Your task to perform on an android device: change alarm snooze length Image 0: 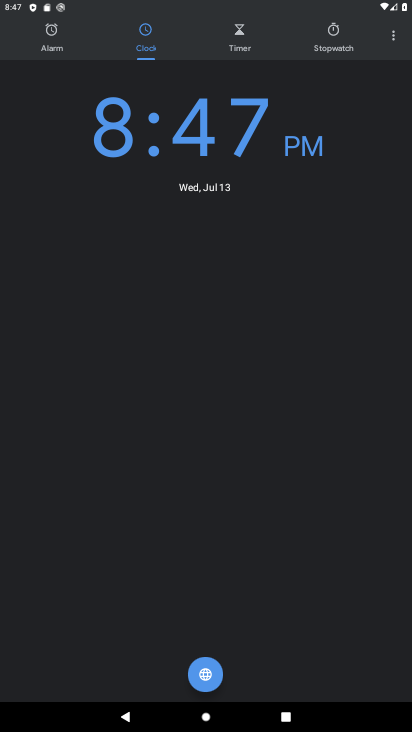
Step 0: click (386, 43)
Your task to perform on an android device: change alarm snooze length Image 1: 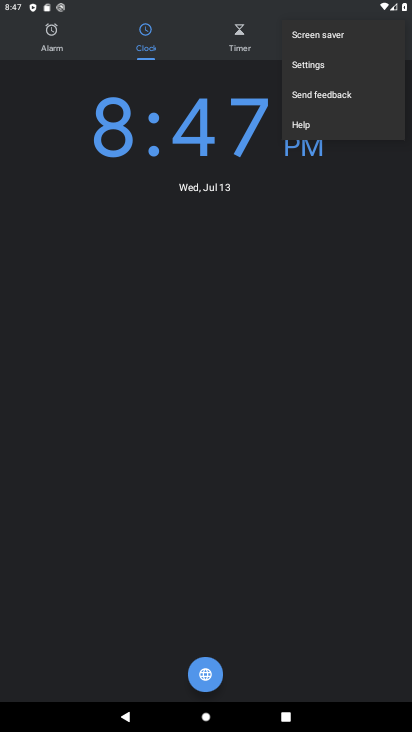
Step 1: click (320, 64)
Your task to perform on an android device: change alarm snooze length Image 2: 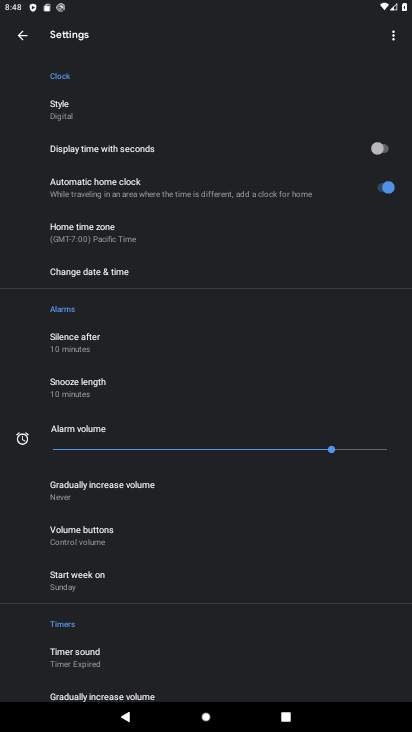
Step 2: drag from (109, 622) to (144, 391)
Your task to perform on an android device: change alarm snooze length Image 3: 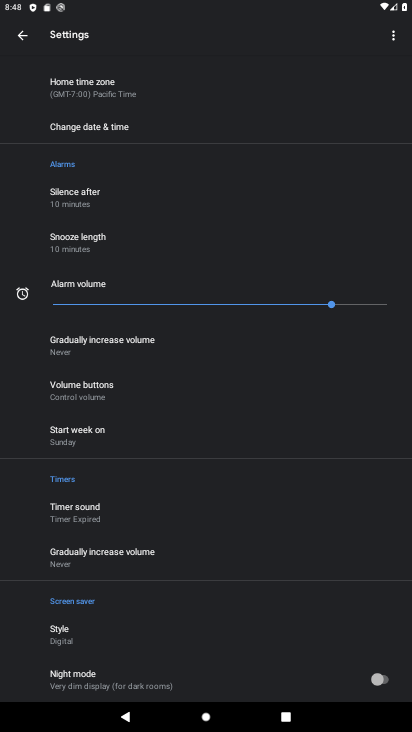
Step 3: drag from (125, 625) to (161, 323)
Your task to perform on an android device: change alarm snooze length Image 4: 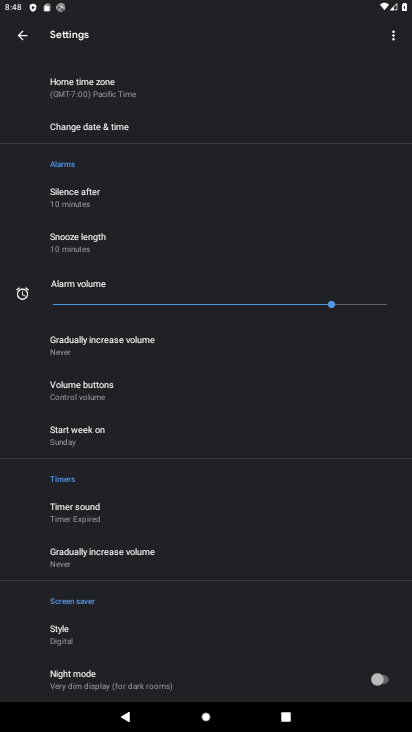
Step 4: click (56, 232)
Your task to perform on an android device: change alarm snooze length Image 5: 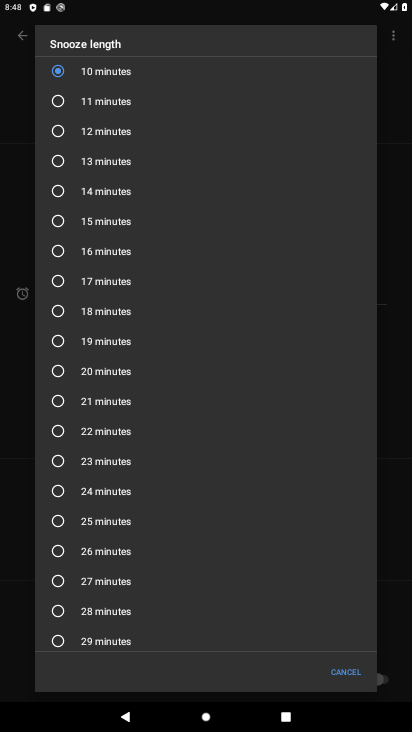
Step 5: click (99, 129)
Your task to perform on an android device: change alarm snooze length Image 6: 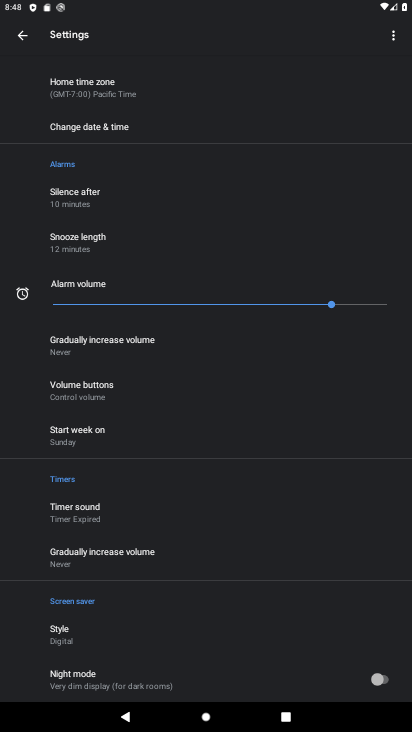
Step 6: task complete